Your task to perform on an android device: Open the web browser Image 0: 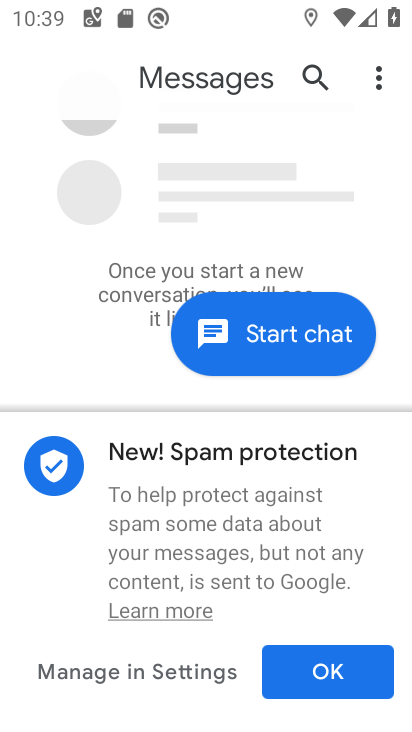
Step 0: press home button
Your task to perform on an android device: Open the web browser Image 1: 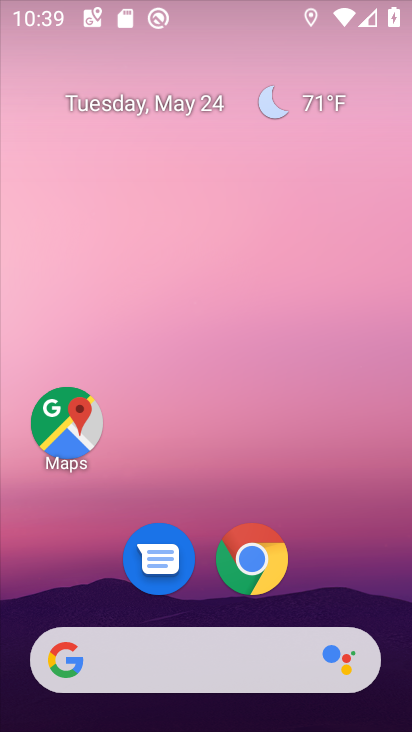
Step 1: drag from (398, 618) to (285, 57)
Your task to perform on an android device: Open the web browser Image 2: 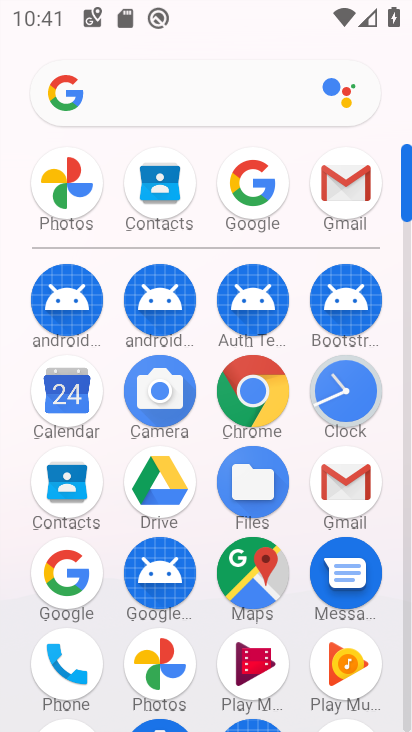
Step 2: click (270, 398)
Your task to perform on an android device: Open the web browser Image 3: 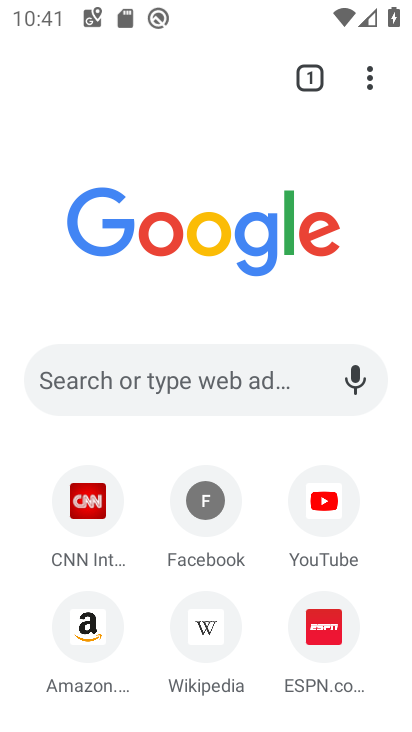
Step 3: task complete